Your task to perform on an android device: open chrome and create a bookmark for the current page Image 0: 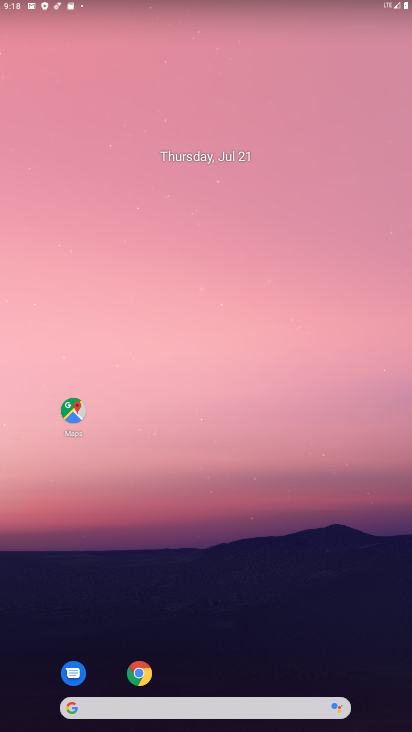
Step 0: drag from (173, 665) to (197, 97)
Your task to perform on an android device: open chrome and create a bookmark for the current page Image 1: 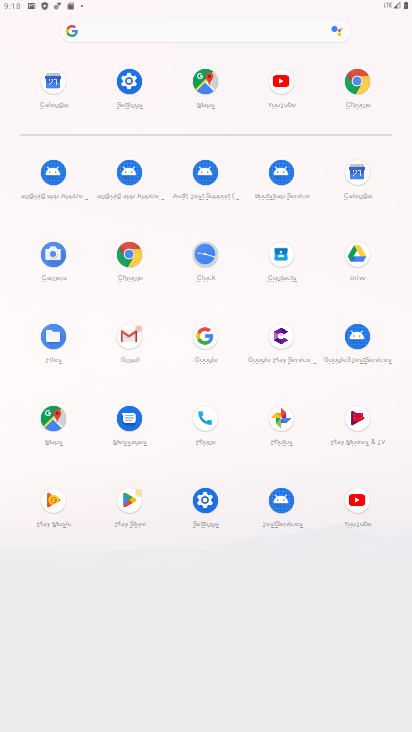
Step 1: click (130, 255)
Your task to perform on an android device: open chrome and create a bookmark for the current page Image 2: 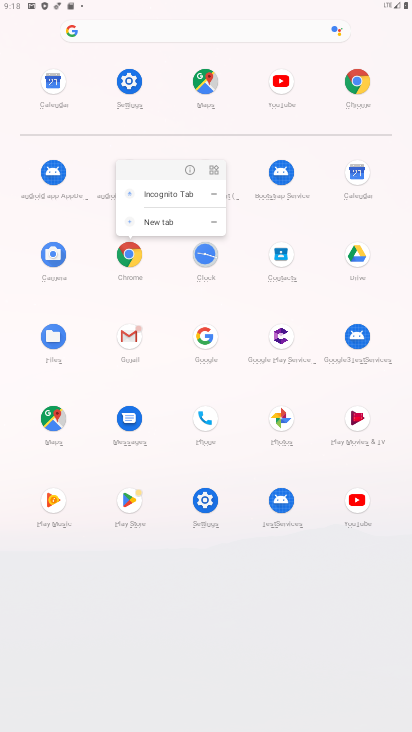
Step 2: click (192, 164)
Your task to perform on an android device: open chrome and create a bookmark for the current page Image 3: 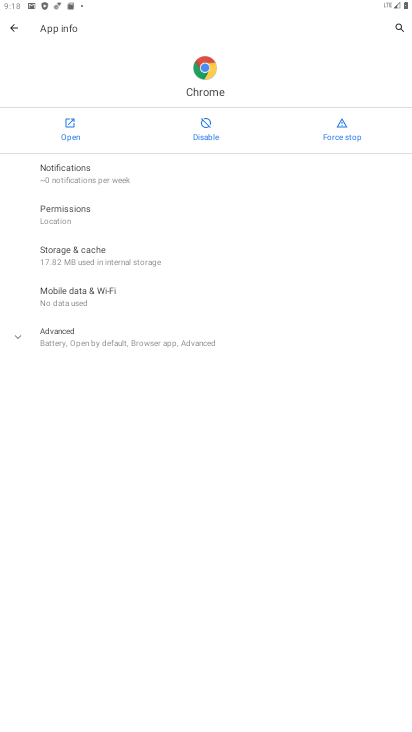
Step 3: click (71, 128)
Your task to perform on an android device: open chrome and create a bookmark for the current page Image 4: 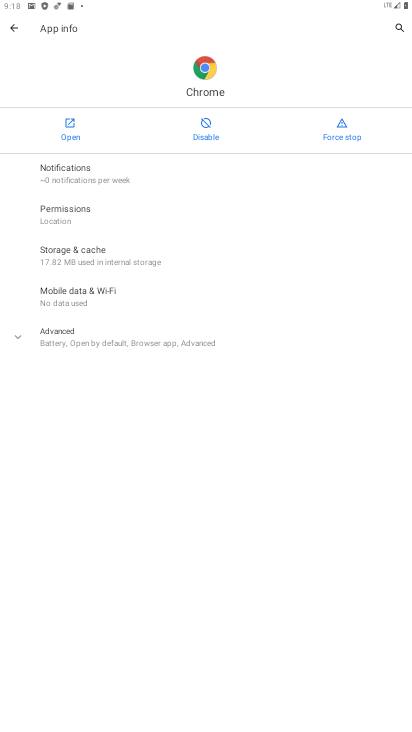
Step 4: click (71, 128)
Your task to perform on an android device: open chrome and create a bookmark for the current page Image 5: 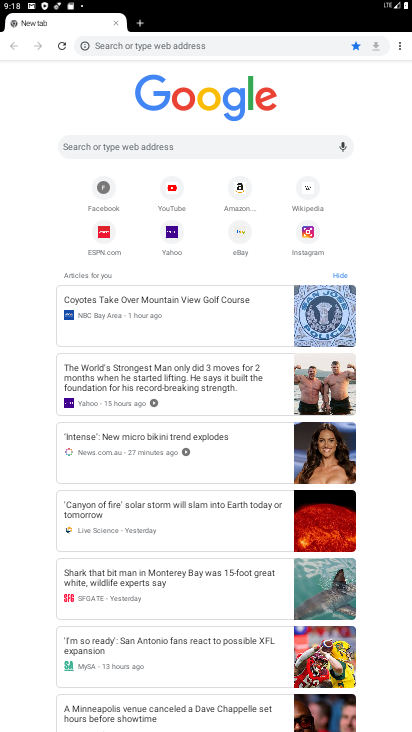
Step 5: task complete